Your task to perform on an android device: toggle sleep mode Image 0: 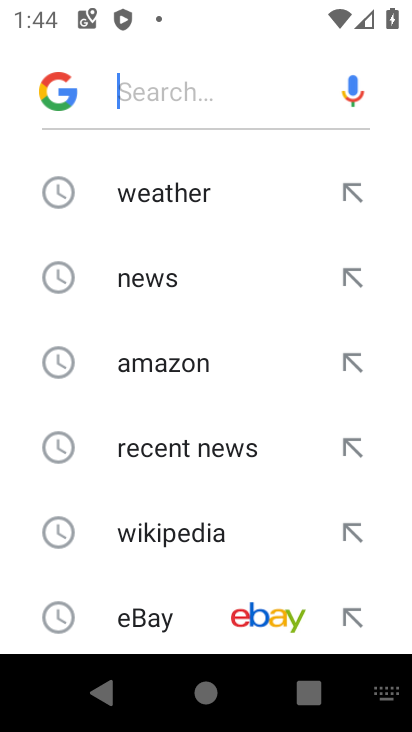
Step 0: press home button
Your task to perform on an android device: toggle sleep mode Image 1: 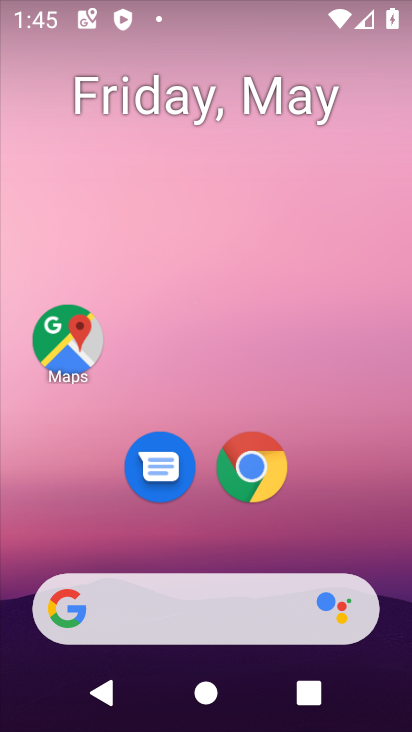
Step 1: drag from (331, 462) to (308, 130)
Your task to perform on an android device: toggle sleep mode Image 2: 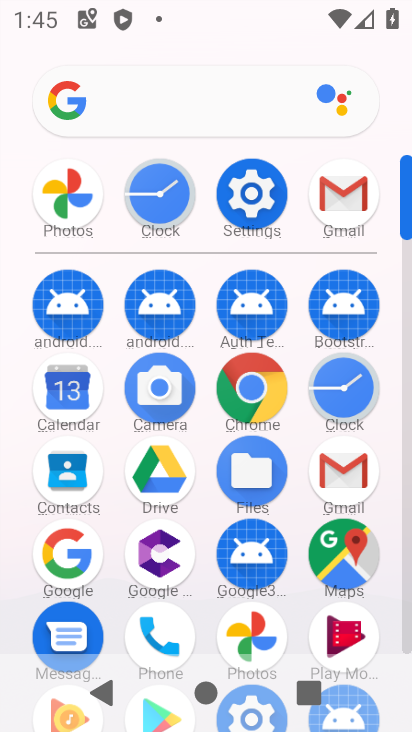
Step 2: click (246, 194)
Your task to perform on an android device: toggle sleep mode Image 3: 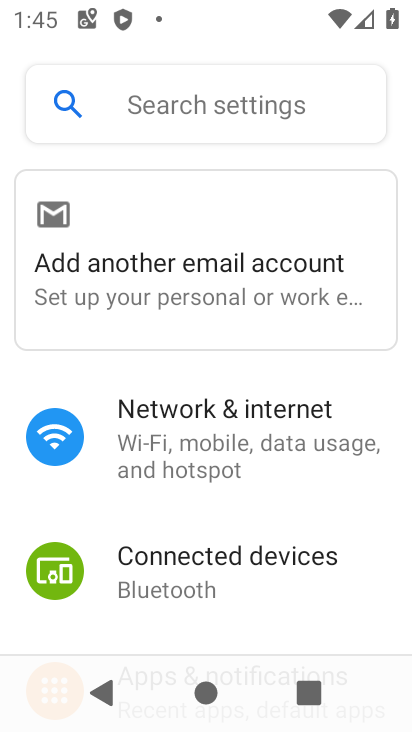
Step 3: drag from (179, 530) to (218, 300)
Your task to perform on an android device: toggle sleep mode Image 4: 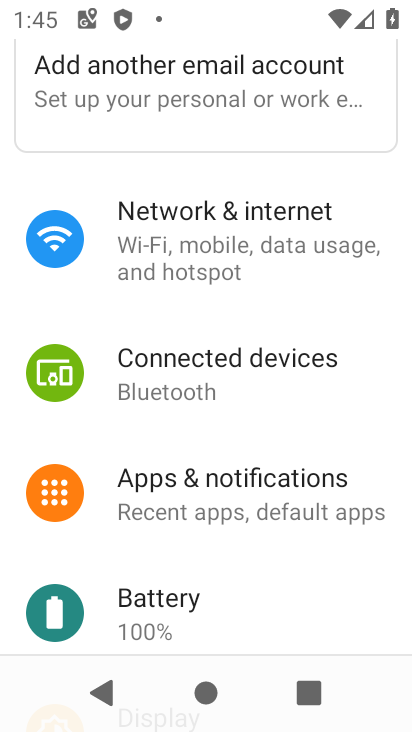
Step 4: drag from (207, 576) to (267, 364)
Your task to perform on an android device: toggle sleep mode Image 5: 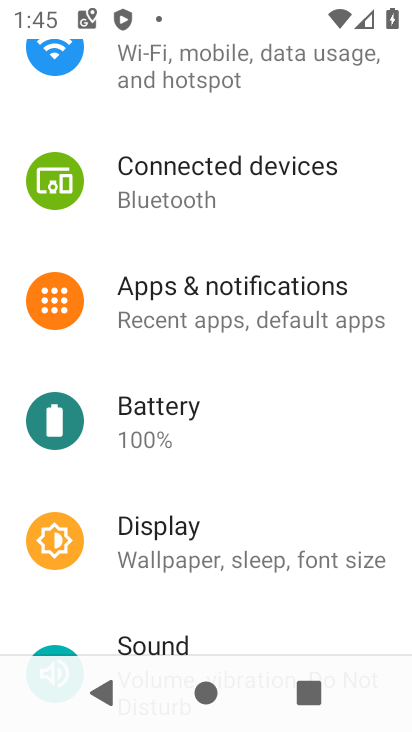
Step 5: click (246, 555)
Your task to perform on an android device: toggle sleep mode Image 6: 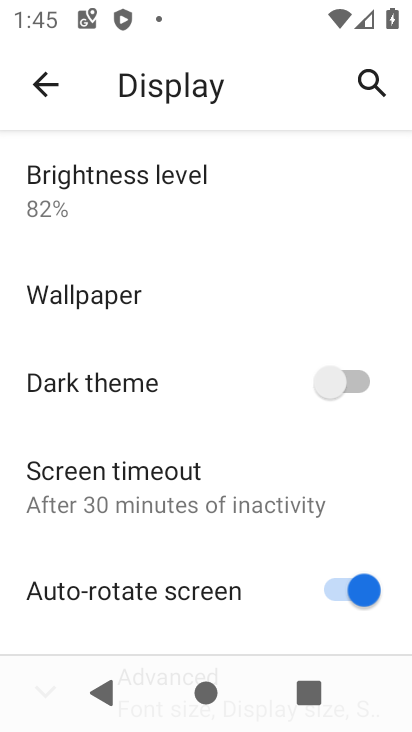
Step 6: click (116, 484)
Your task to perform on an android device: toggle sleep mode Image 7: 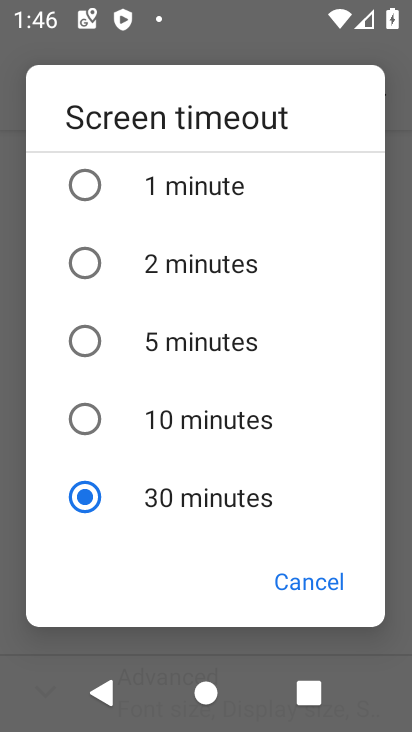
Step 7: click (156, 414)
Your task to perform on an android device: toggle sleep mode Image 8: 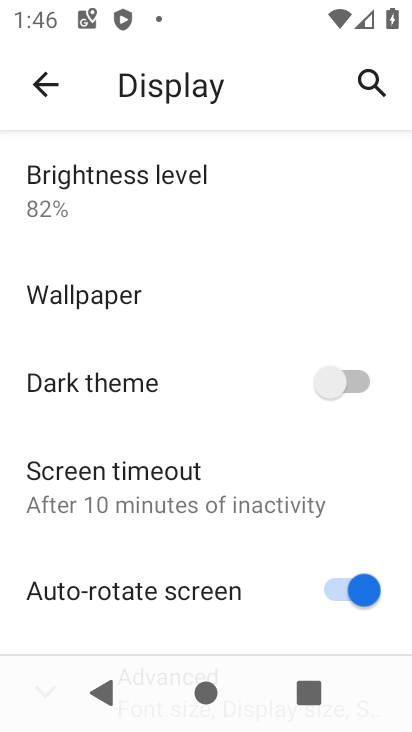
Step 8: task complete